Your task to perform on an android device: Open Yahoo.com Image 0: 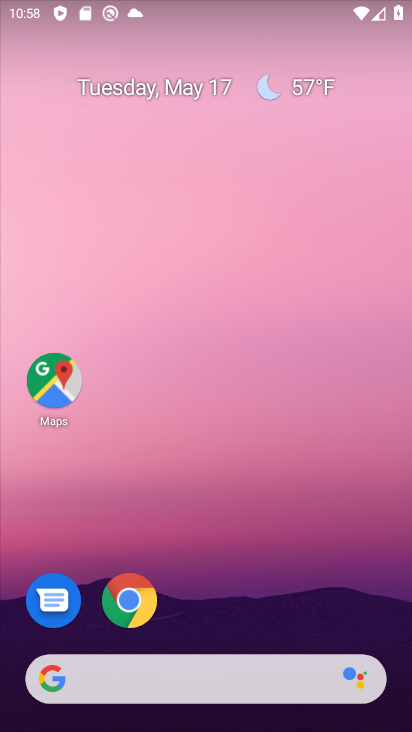
Step 0: drag from (332, 676) to (199, 5)
Your task to perform on an android device: Open Yahoo.com Image 1: 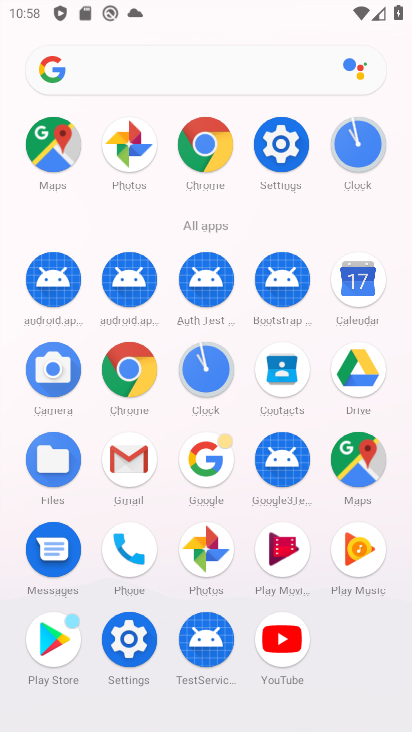
Step 1: click (208, 152)
Your task to perform on an android device: Open Yahoo.com Image 2: 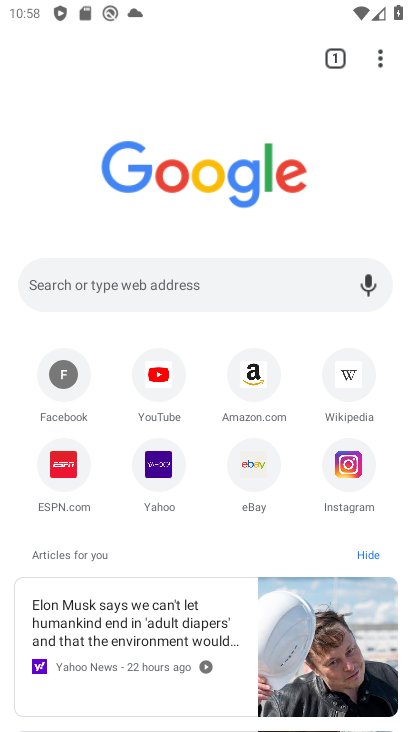
Step 2: click (156, 460)
Your task to perform on an android device: Open Yahoo.com Image 3: 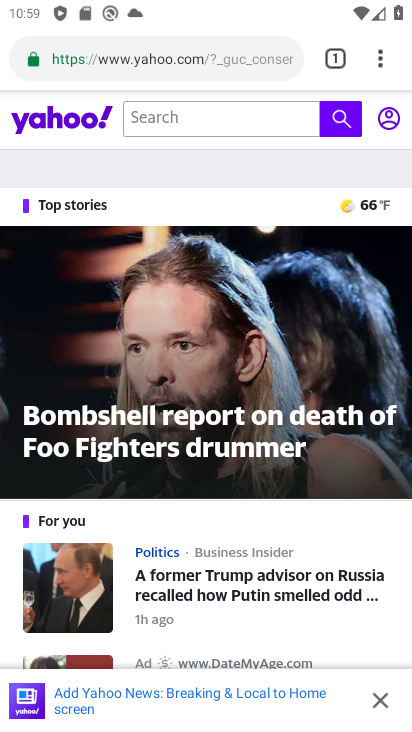
Step 3: task complete